Your task to perform on an android device: turn smart compose on in the gmail app Image 0: 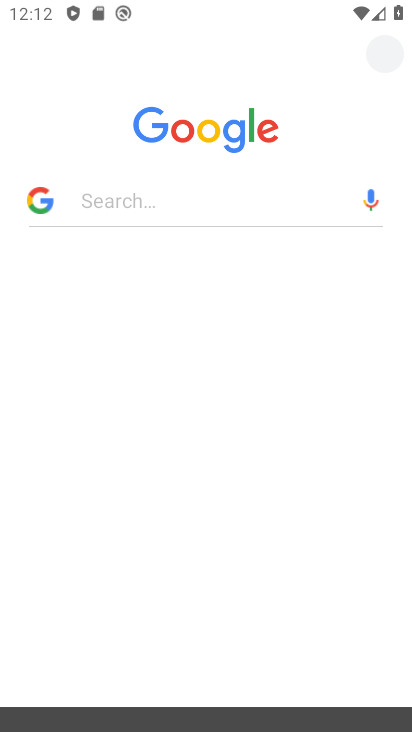
Step 0: press home button
Your task to perform on an android device: turn smart compose on in the gmail app Image 1: 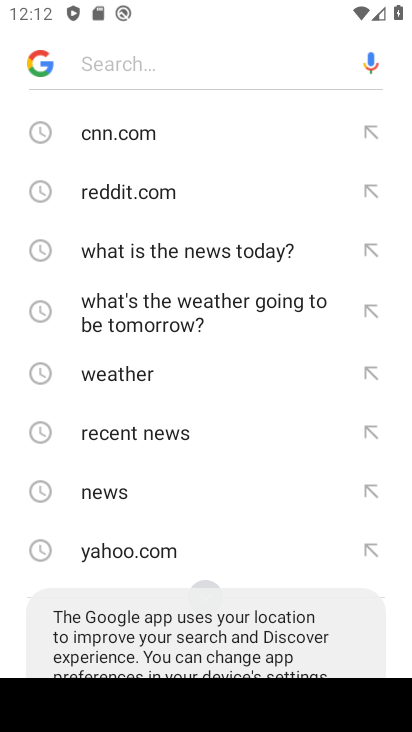
Step 1: press home button
Your task to perform on an android device: turn smart compose on in the gmail app Image 2: 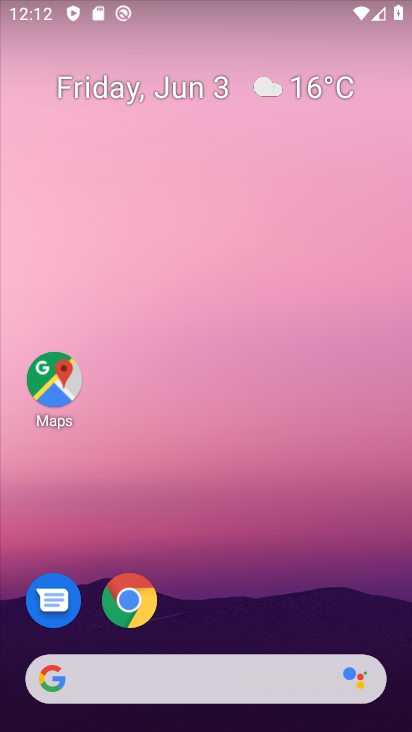
Step 2: drag from (271, 458) to (264, 185)
Your task to perform on an android device: turn smart compose on in the gmail app Image 3: 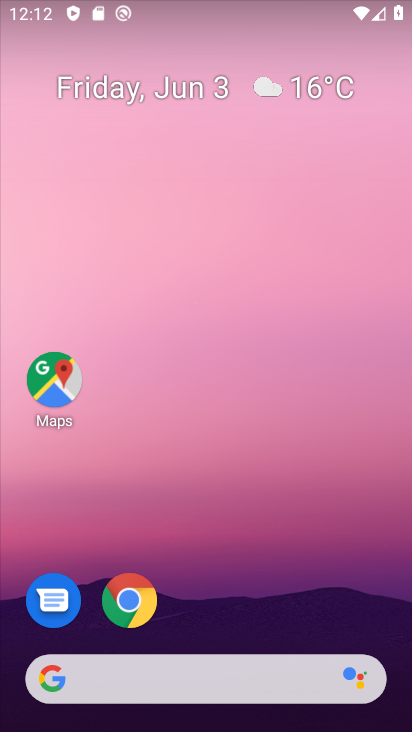
Step 3: drag from (300, 584) to (301, 141)
Your task to perform on an android device: turn smart compose on in the gmail app Image 4: 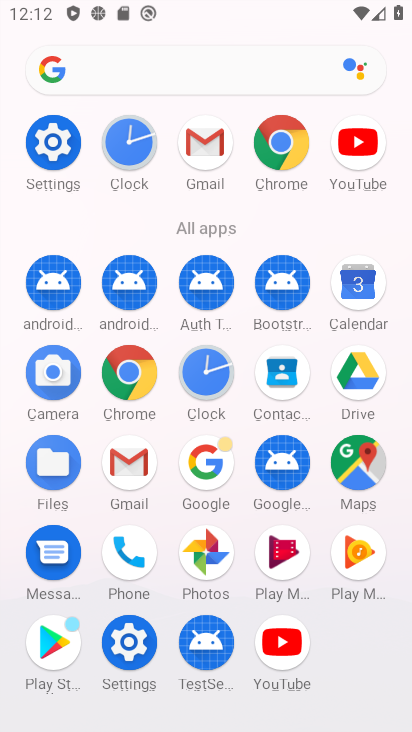
Step 4: click (218, 136)
Your task to perform on an android device: turn smart compose on in the gmail app Image 5: 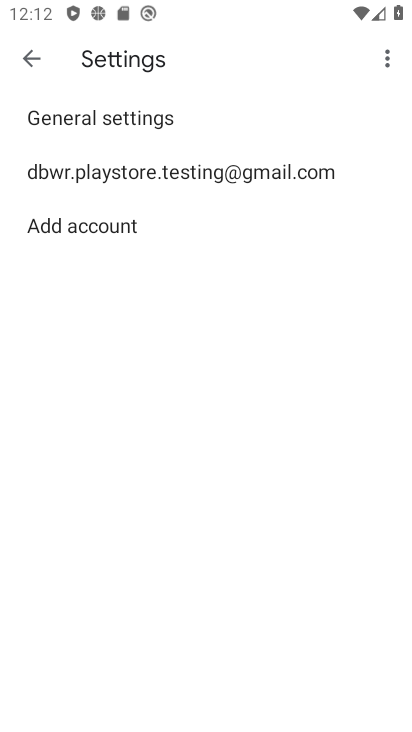
Step 5: click (168, 174)
Your task to perform on an android device: turn smart compose on in the gmail app Image 6: 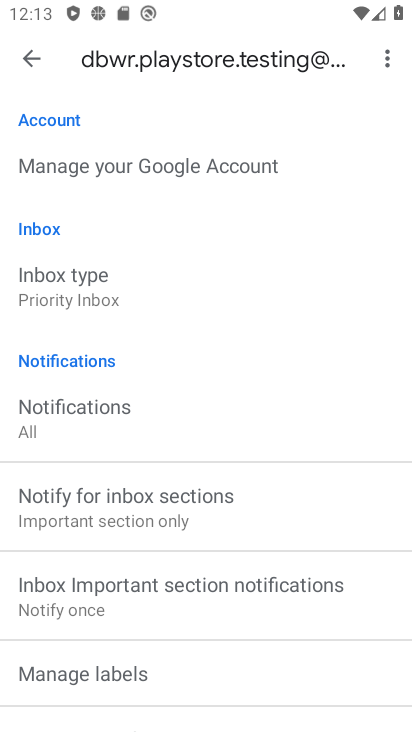
Step 6: task complete